Your task to perform on an android device: Go to sound settings Image 0: 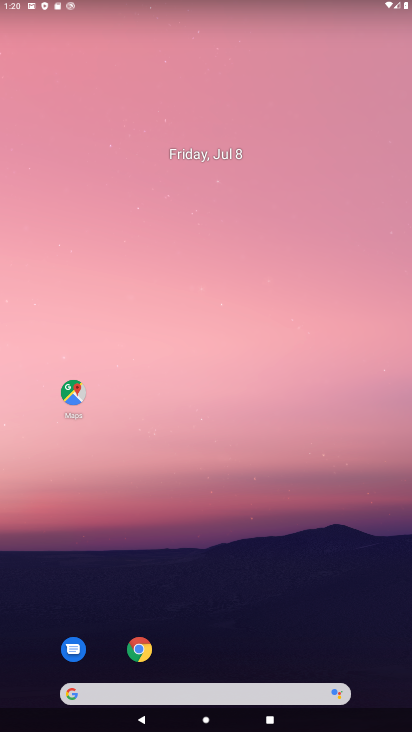
Step 0: drag from (308, 607) to (220, 119)
Your task to perform on an android device: Go to sound settings Image 1: 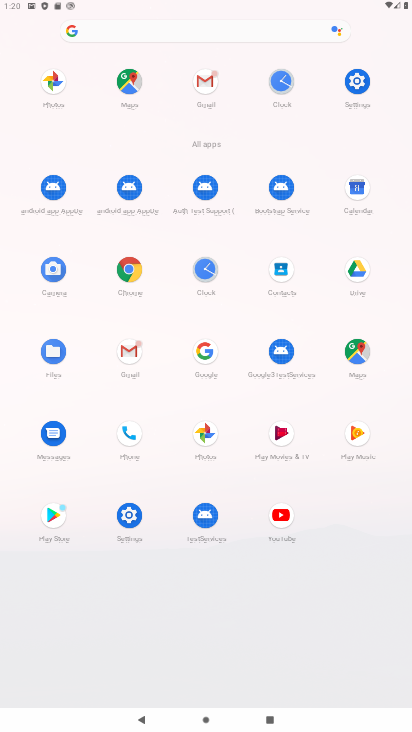
Step 1: click (354, 80)
Your task to perform on an android device: Go to sound settings Image 2: 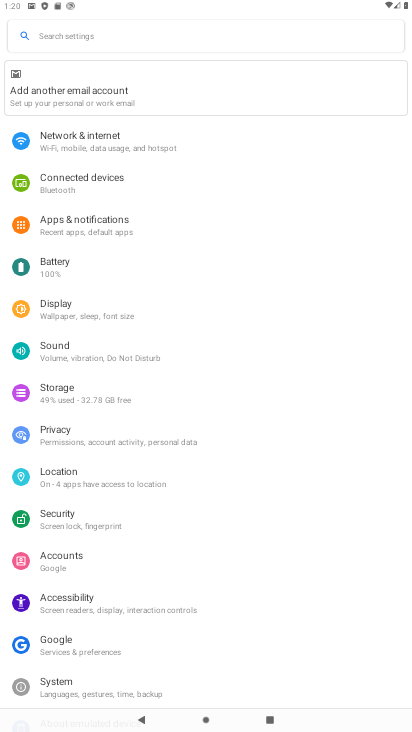
Step 2: click (93, 352)
Your task to perform on an android device: Go to sound settings Image 3: 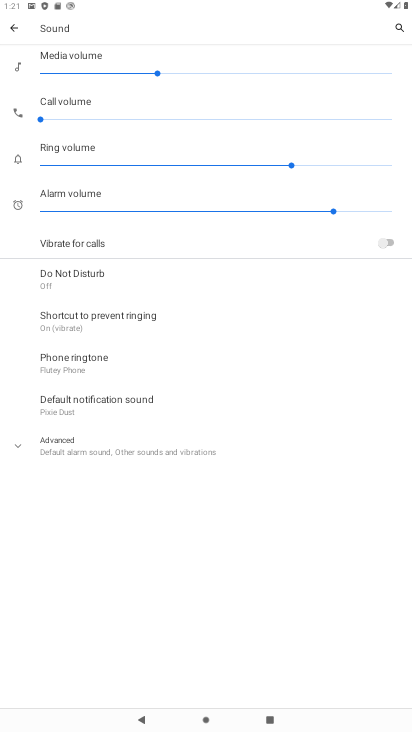
Step 3: task complete